Your task to perform on an android device: turn smart compose on in the gmail app Image 0: 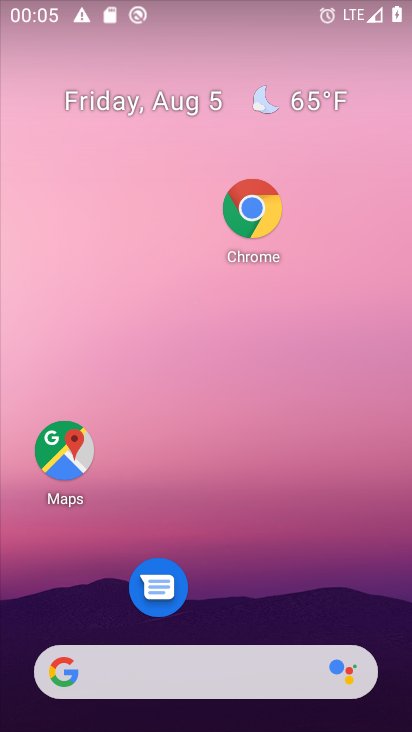
Step 0: drag from (247, 604) to (264, 245)
Your task to perform on an android device: turn smart compose on in the gmail app Image 1: 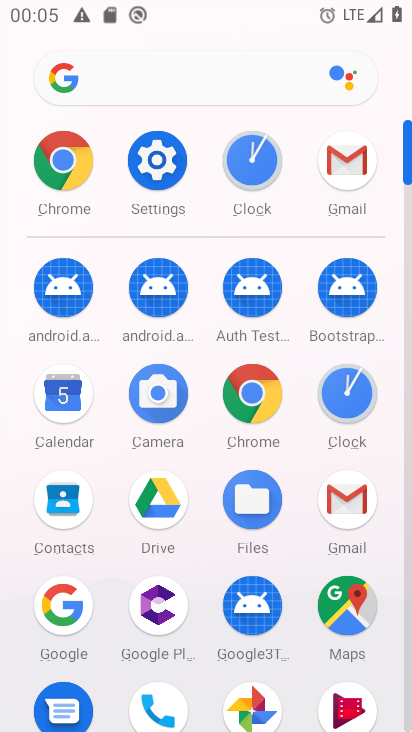
Step 1: click (340, 171)
Your task to perform on an android device: turn smart compose on in the gmail app Image 2: 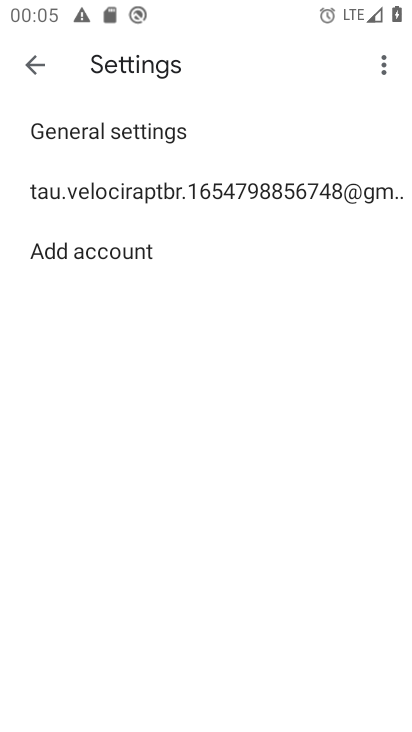
Step 2: click (227, 181)
Your task to perform on an android device: turn smart compose on in the gmail app Image 3: 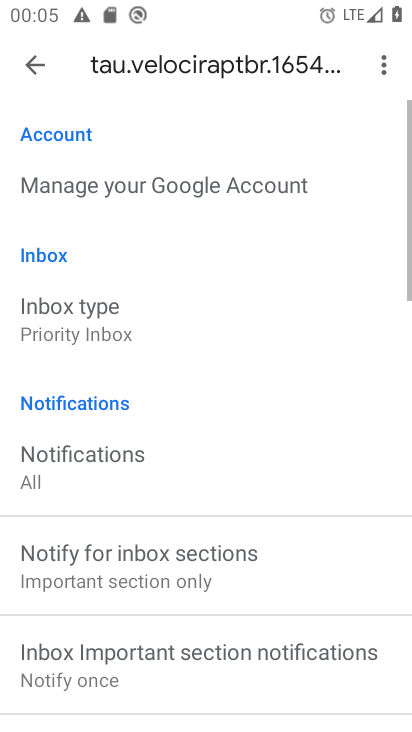
Step 3: task complete